Your task to perform on an android device: change the upload size in google photos Image 0: 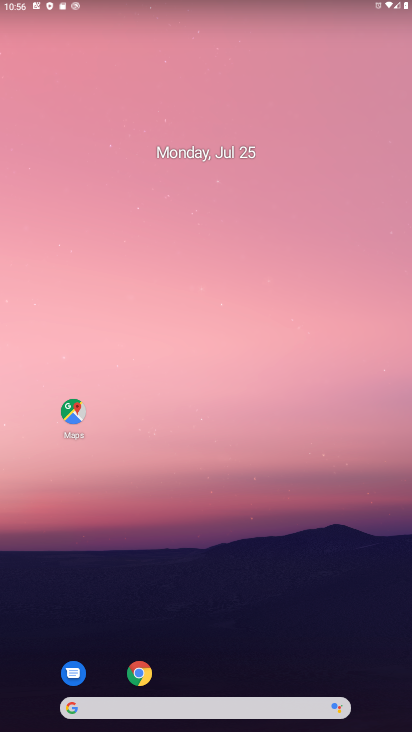
Step 0: press home button
Your task to perform on an android device: change the upload size in google photos Image 1: 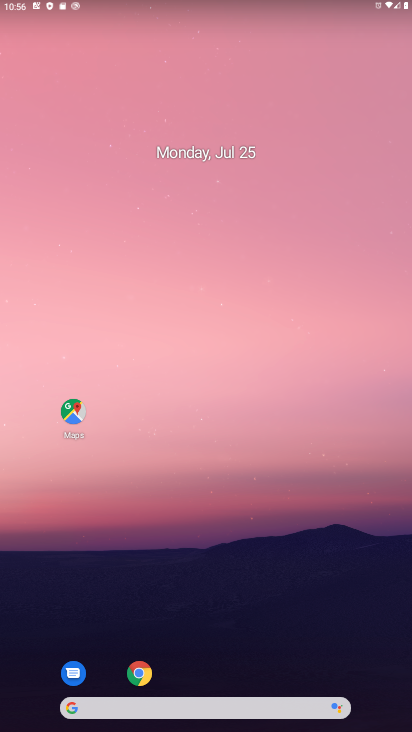
Step 1: drag from (224, 680) to (270, 31)
Your task to perform on an android device: change the upload size in google photos Image 2: 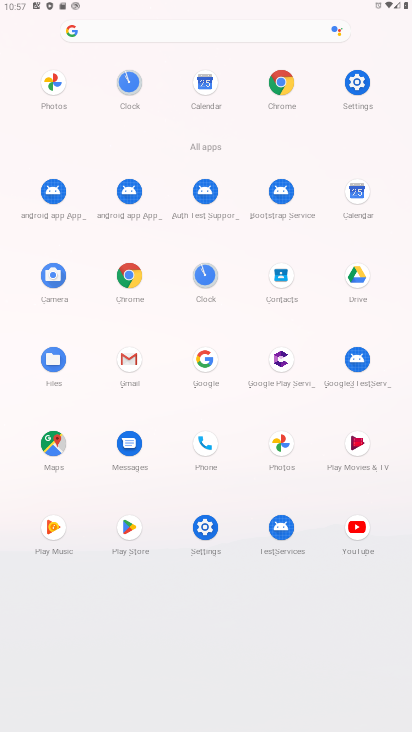
Step 2: click (273, 433)
Your task to perform on an android device: change the upload size in google photos Image 3: 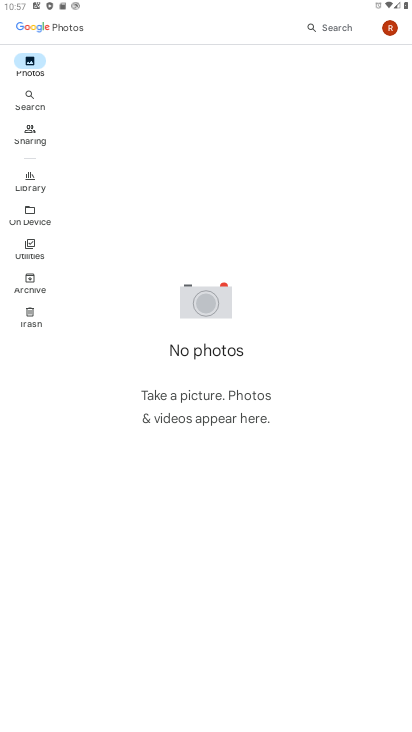
Step 3: click (390, 21)
Your task to perform on an android device: change the upload size in google photos Image 4: 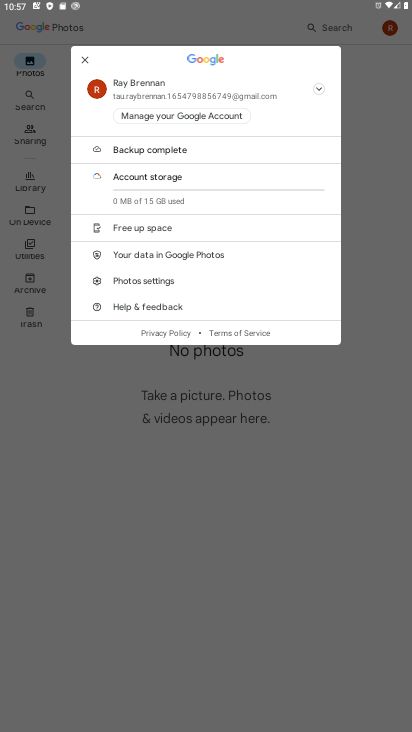
Step 4: click (180, 278)
Your task to perform on an android device: change the upload size in google photos Image 5: 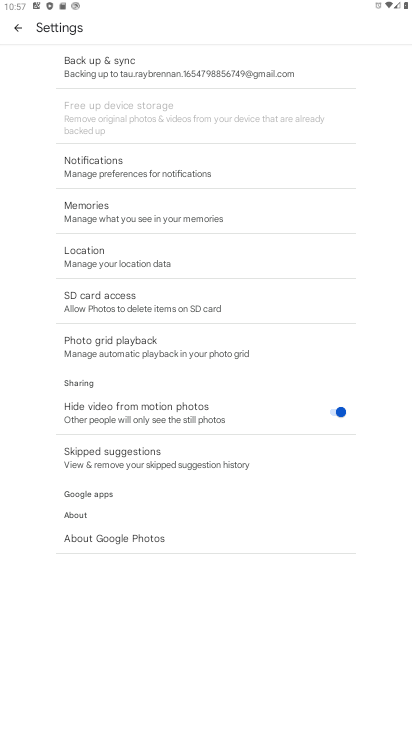
Step 5: click (122, 66)
Your task to perform on an android device: change the upload size in google photos Image 6: 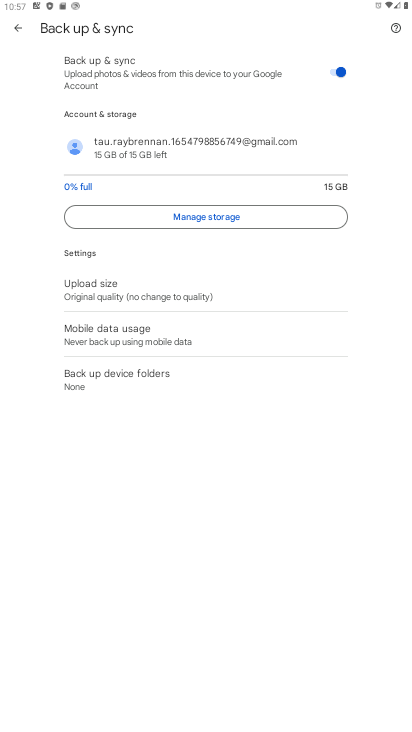
Step 6: click (126, 282)
Your task to perform on an android device: change the upload size in google photos Image 7: 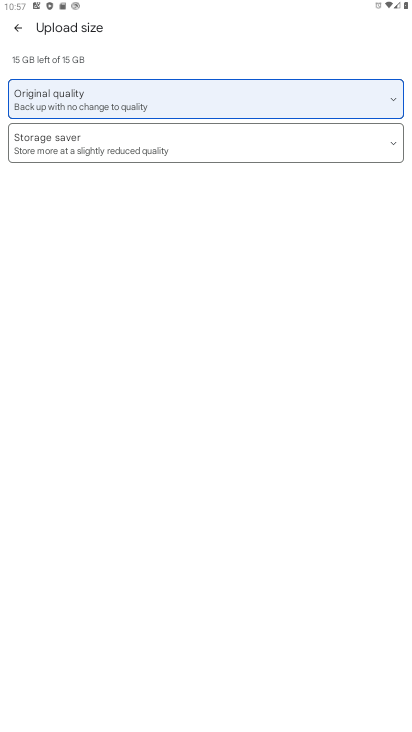
Step 7: click (87, 146)
Your task to perform on an android device: change the upload size in google photos Image 8: 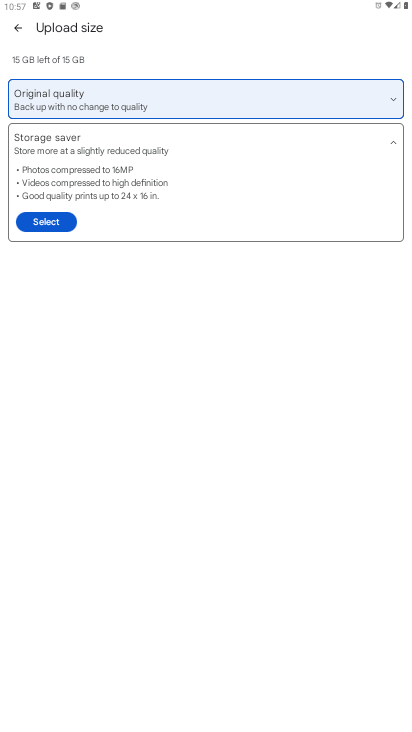
Step 8: click (50, 214)
Your task to perform on an android device: change the upload size in google photos Image 9: 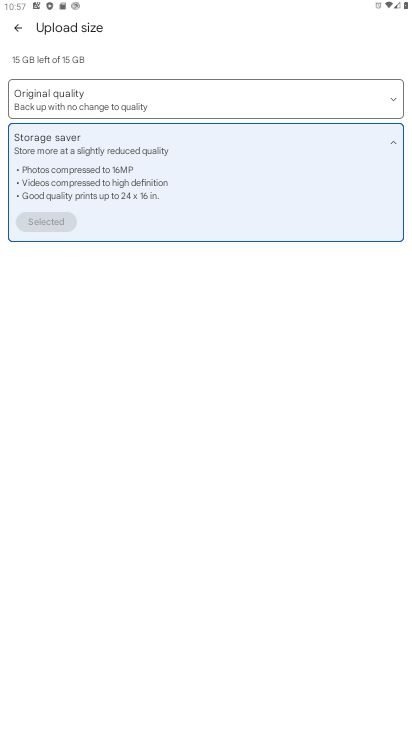
Step 9: task complete